Your task to perform on an android device: find snoozed emails in the gmail app Image 0: 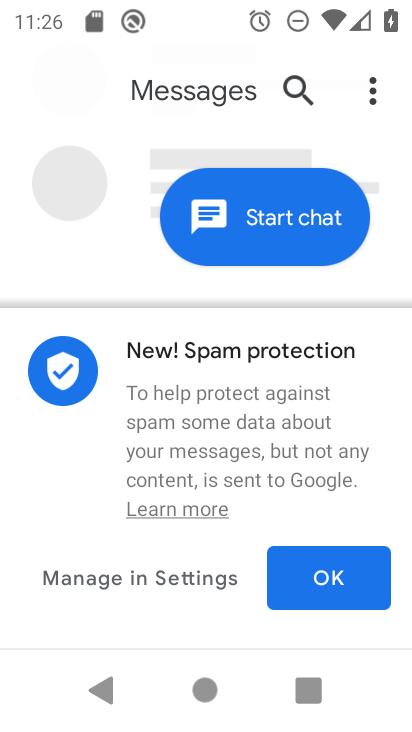
Step 0: click (61, 317)
Your task to perform on an android device: find snoozed emails in the gmail app Image 1: 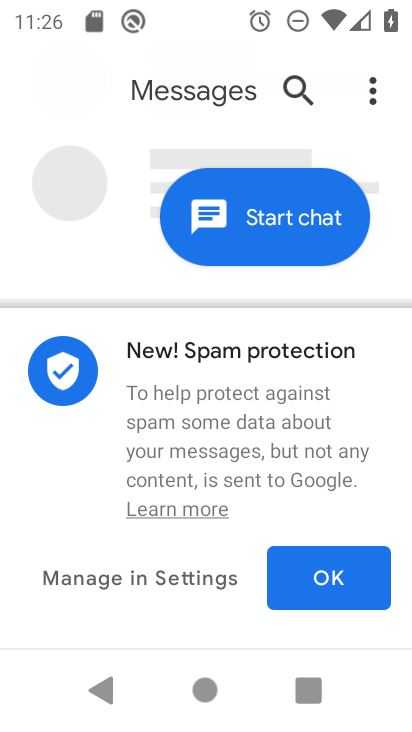
Step 1: press home button
Your task to perform on an android device: find snoozed emails in the gmail app Image 2: 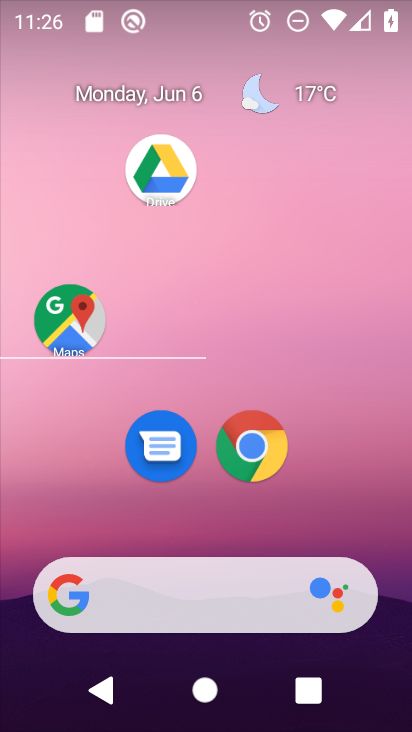
Step 2: drag from (200, 527) to (252, 169)
Your task to perform on an android device: find snoozed emails in the gmail app Image 3: 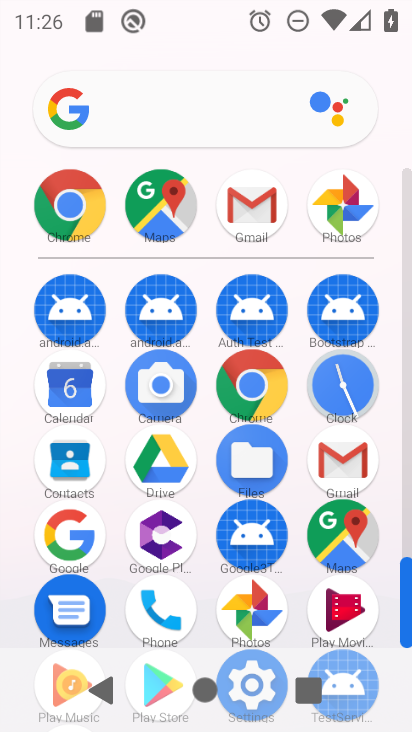
Step 3: click (254, 186)
Your task to perform on an android device: find snoozed emails in the gmail app Image 4: 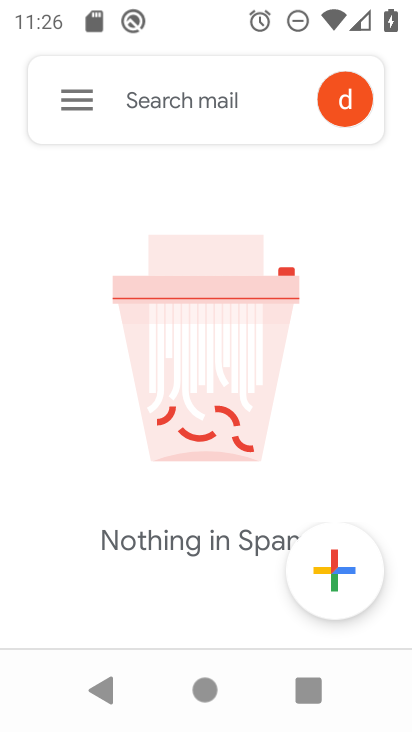
Step 4: click (82, 118)
Your task to perform on an android device: find snoozed emails in the gmail app Image 5: 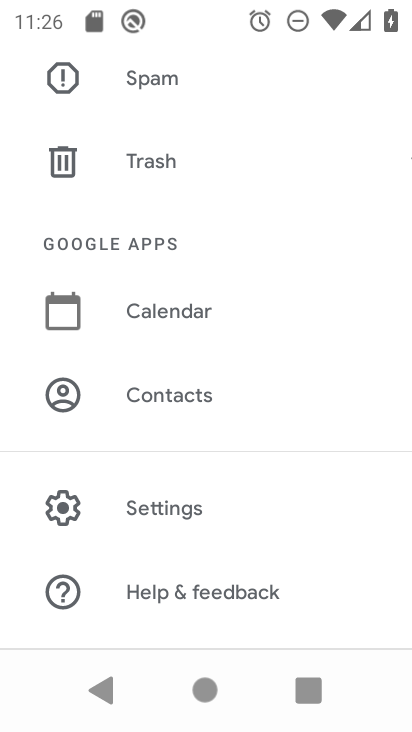
Step 5: drag from (146, 118) to (162, 546)
Your task to perform on an android device: find snoozed emails in the gmail app Image 6: 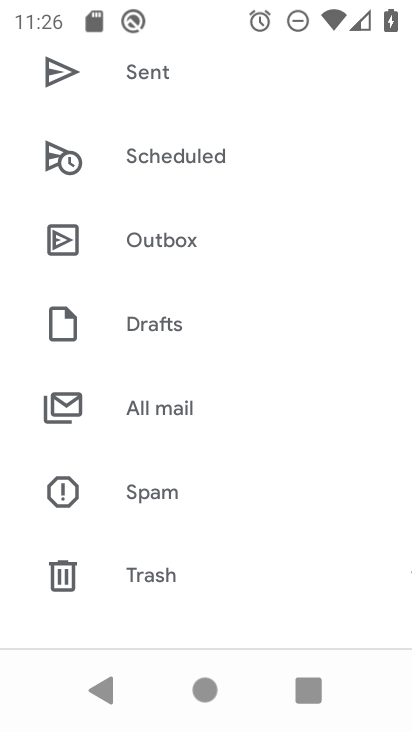
Step 6: drag from (148, 98) to (135, 517)
Your task to perform on an android device: find snoozed emails in the gmail app Image 7: 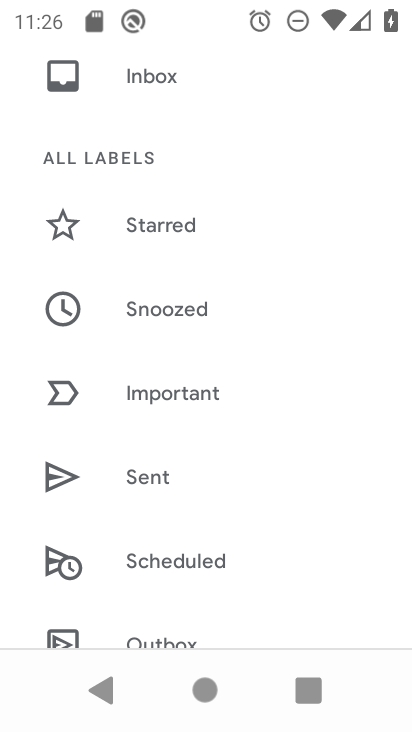
Step 7: click (150, 335)
Your task to perform on an android device: find snoozed emails in the gmail app Image 8: 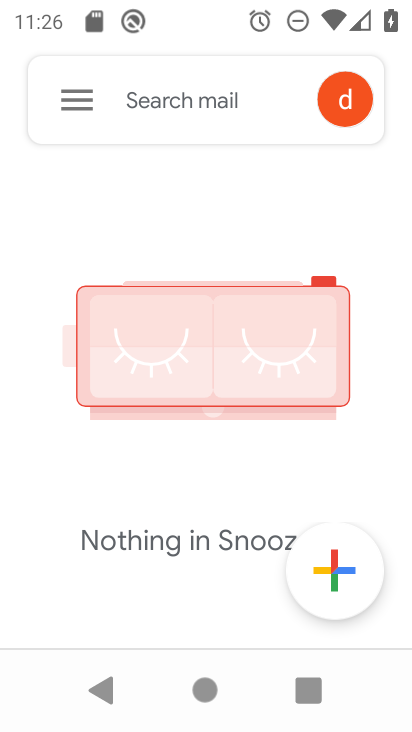
Step 8: task complete